Your task to perform on an android device: See recent photos Image 0: 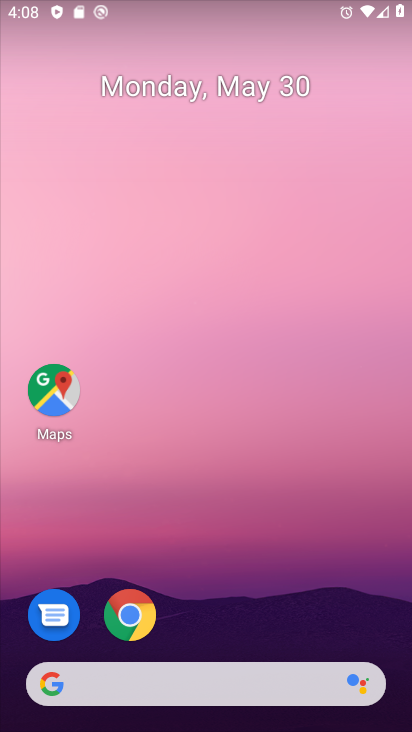
Step 0: drag from (238, 611) to (285, 31)
Your task to perform on an android device: See recent photos Image 1: 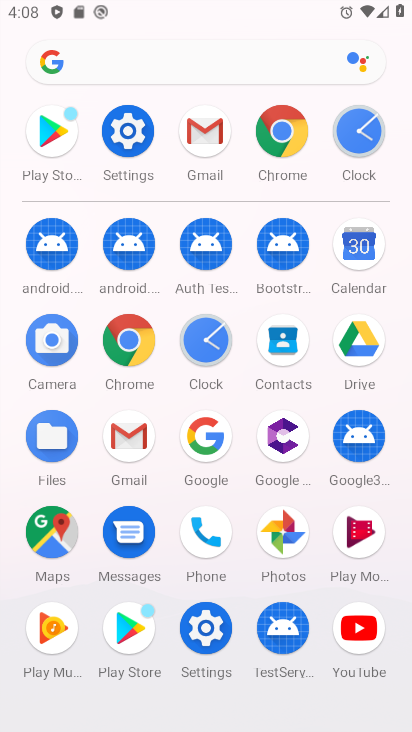
Step 1: click (270, 533)
Your task to perform on an android device: See recent photos Image 2: 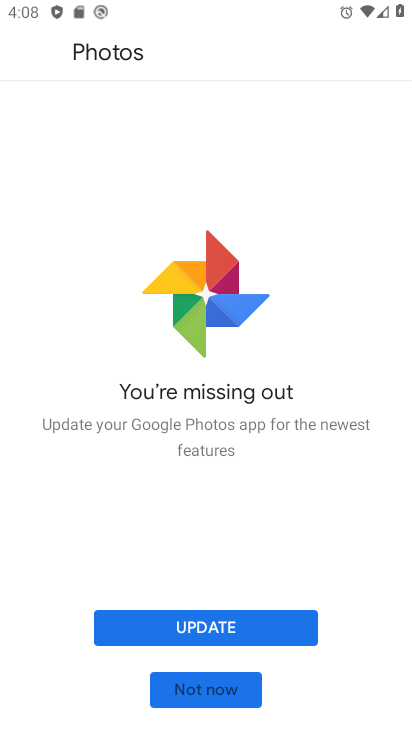
Step 2: click (233, 685)
Your task to perform on an android device: See recent photos Image 3: 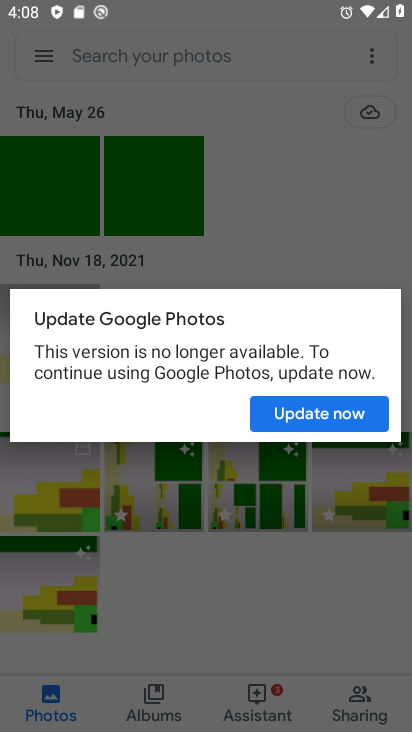
Step 3: click (356, 410)
Your task to perform on an android device: See recent photos Image 4: 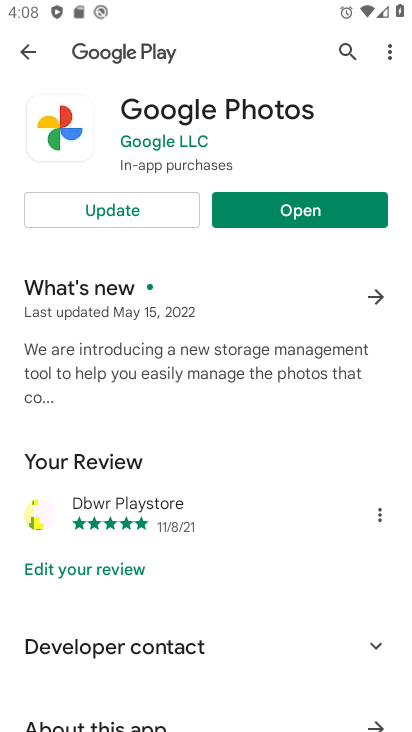
Step 4: click (322, 207)
Your task to perform on an android device: See recent photos Image 5: 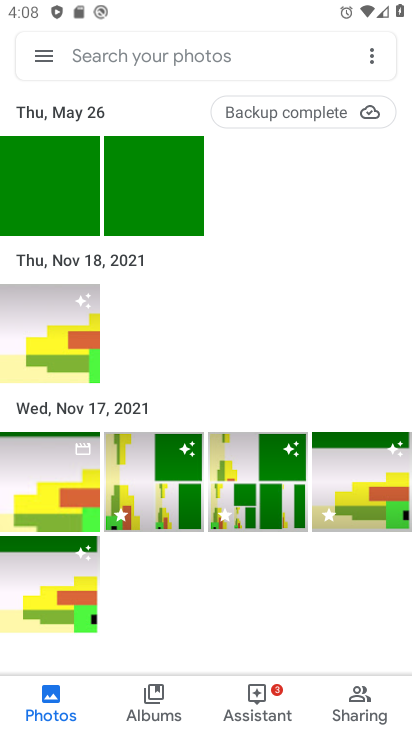
Step 5: task complete